Your task to perform on an android device: Add alienware area 51 to the cart on amazon.com Image 0: 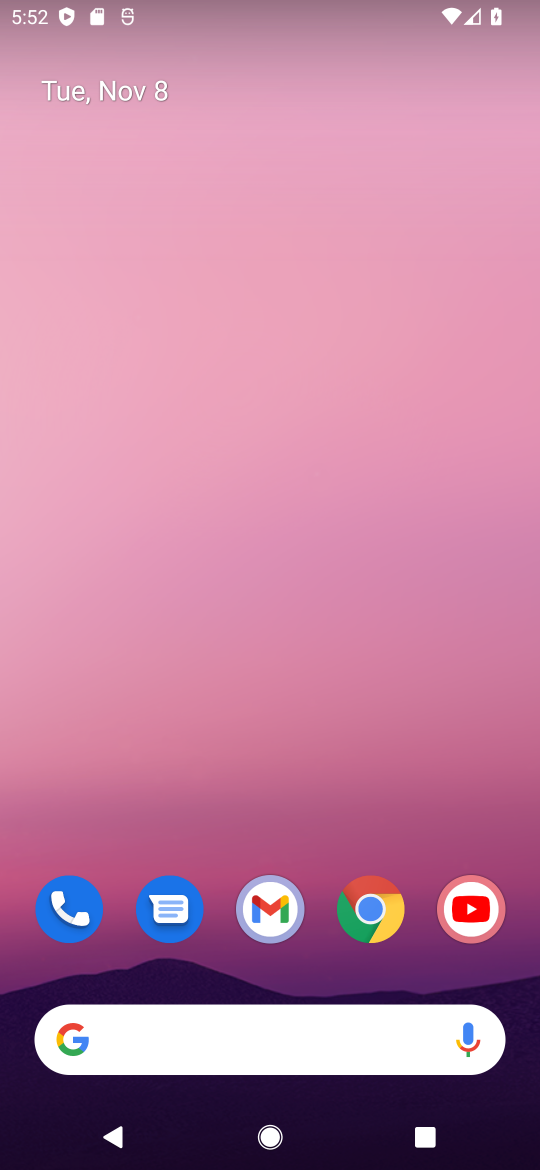
Step 0: click (362, 907)
Your task to perform on an android device: Add alienware area 51 to the cart on amazon.com Image 1: 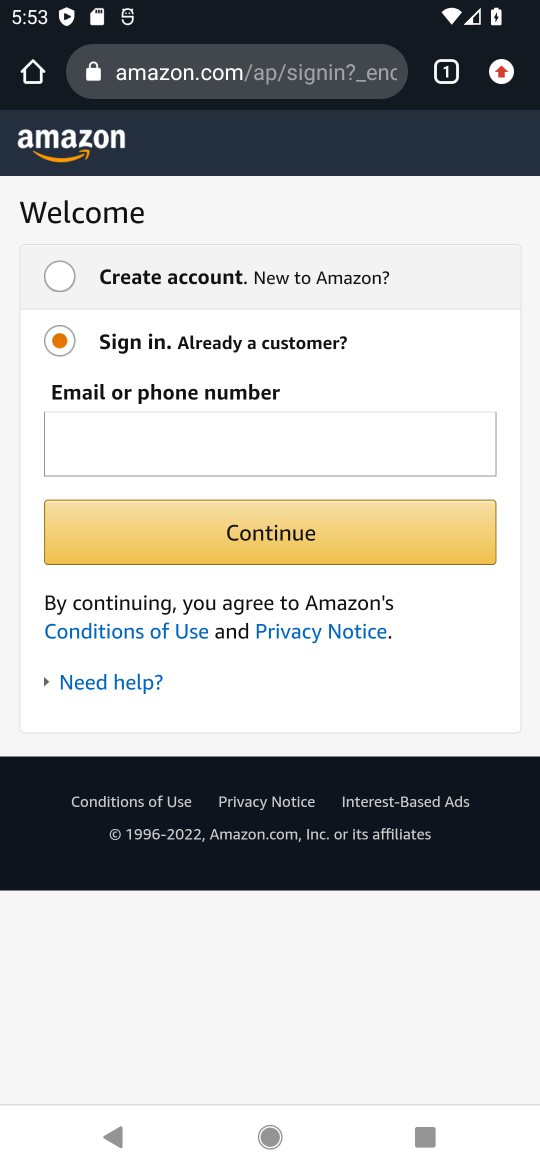
Step 1: press back button
Your task to perform on an android device: Add alienware area 51 to the cart on amazon.com Image 2: 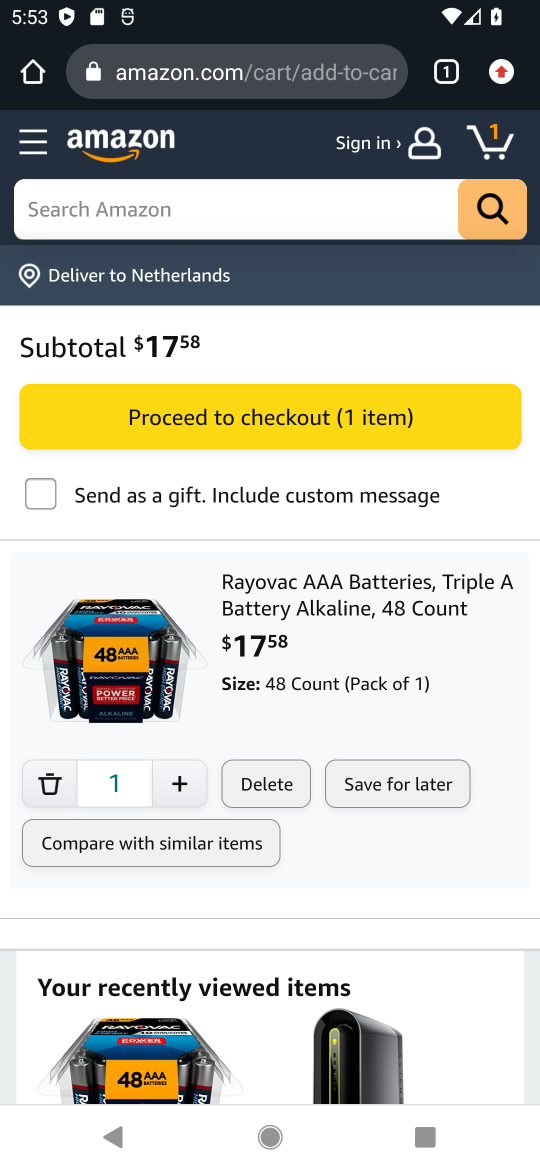
Step 2: click (269, 206)
Your task to perform on an android device: Add alienware area 51 to the cart on amazon.com Image 3: 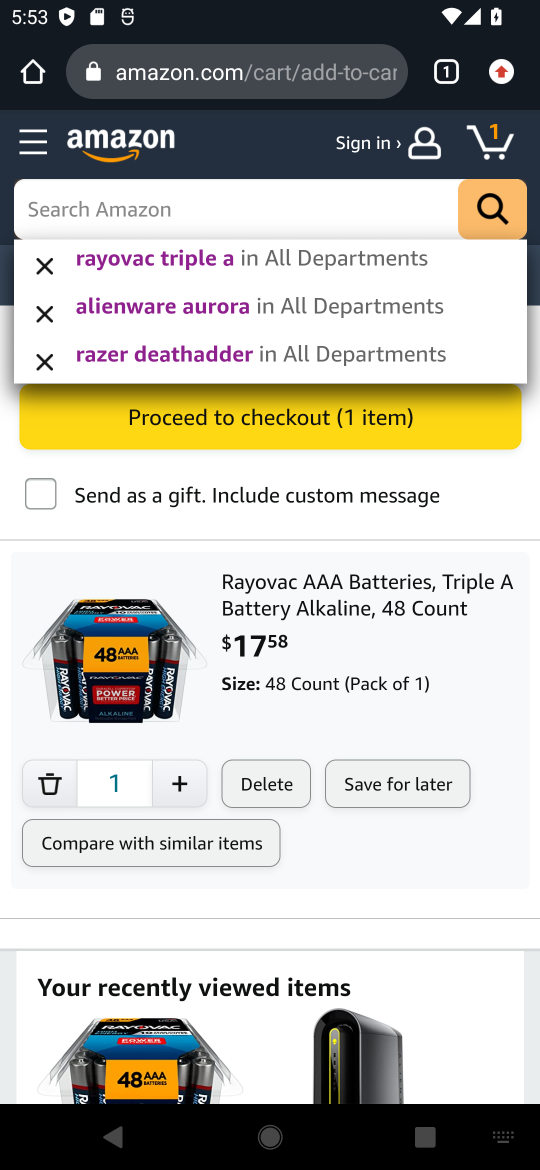
Step 3: type "alienware area 51"
Your task to perform on an android device: Add alienware area 51 to the cart on amazon.com Image 4: 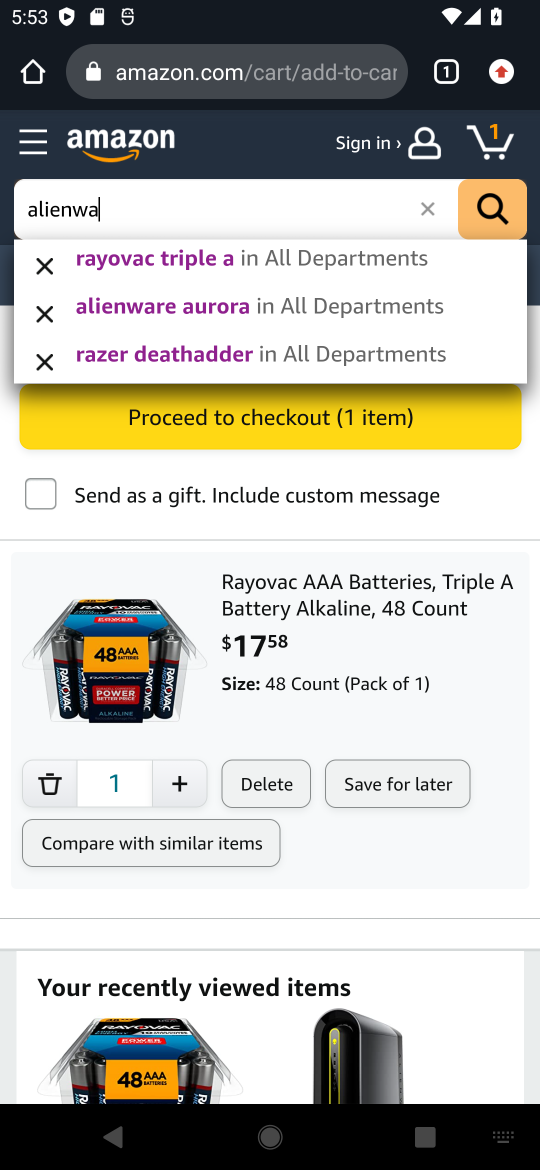
Step 4: press enter
Your task to perform on an android device: Add alienware area 51 to the cart on amazon.com Image 5: 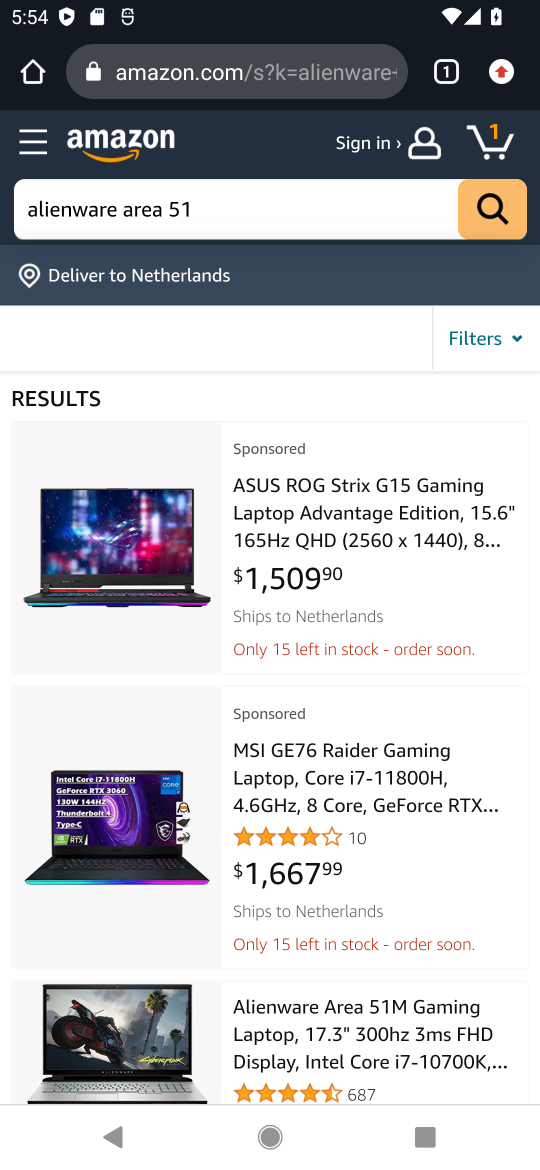
Step 5: drag from (287, 790) to (437, 457)
Your task to perform on an android device: Add alienware area 51 to the cart on amazon.com Image 6: 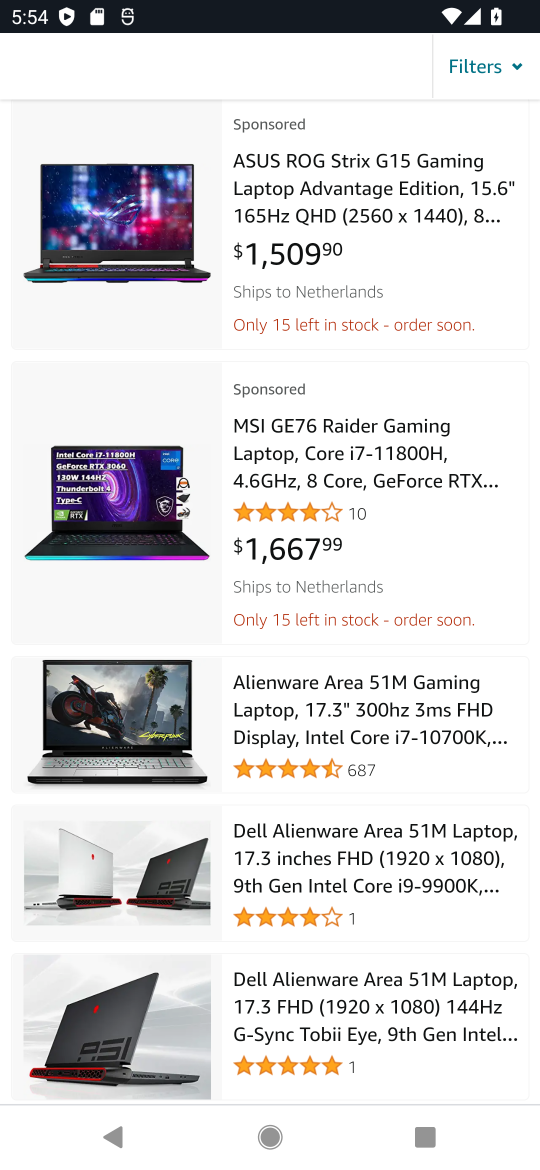
Step 6: click (315, 711)
Your task to perform on an android device: Add alienware area 51 to the cart on amazon.com Image 7: 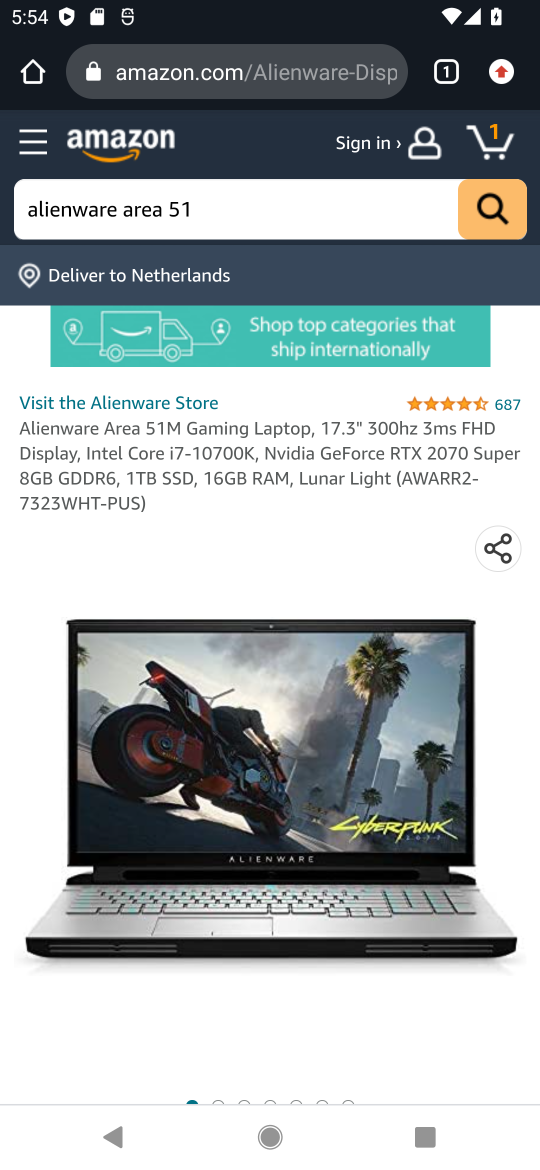
Step 7: task complete